Your task to perform on an android device: turn off notifications settings in the gmail app Image 0: 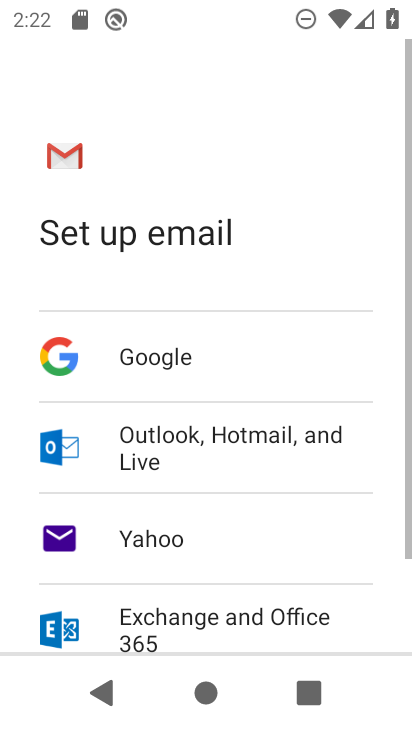
Step 0: press home button
Your task to perform on an android device: turn off notifications settings in the gmail app Image 1: 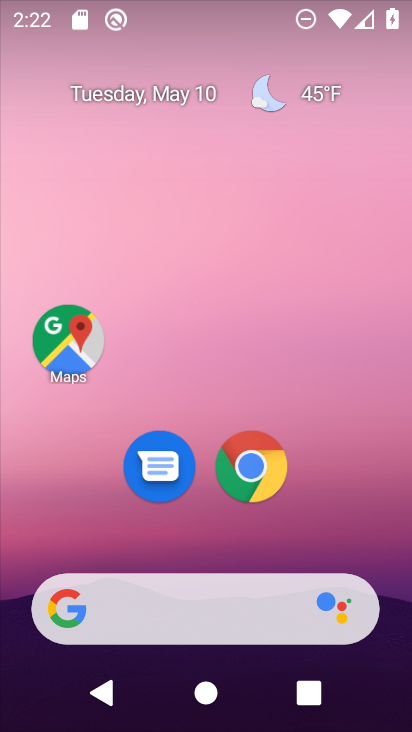
Step 1: drag from (308, 549) to (327, 25)
Your task to perform on an android device: turn off notifications settings in the gmail app Image 2: 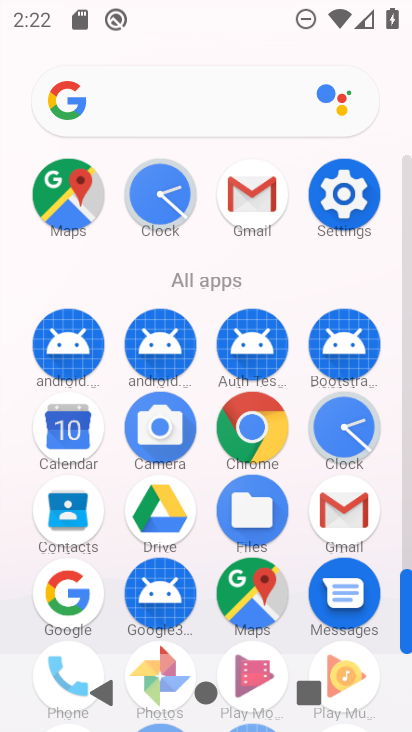
Step 2: click (257, 193)
Your task to perform on an android device: turn off notifications settings in the gmail app Image 3: 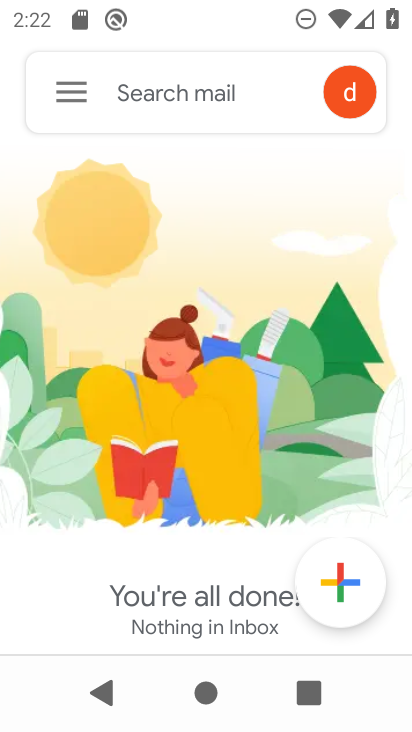
Step 3: click (78, 100)
Your task to perform on an android device: turn off notifications settings in the gmail app Image 4: 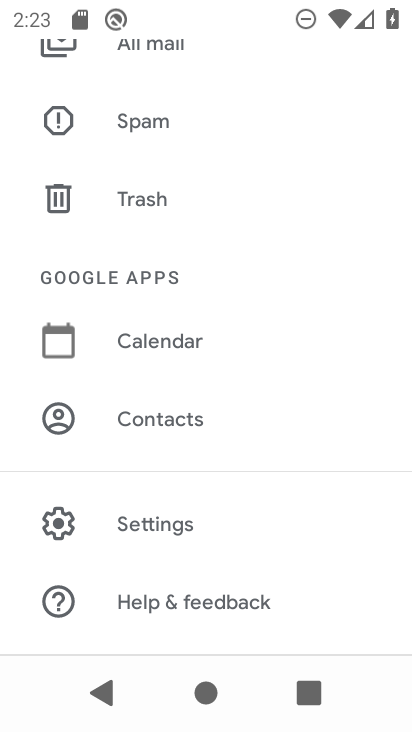
Step 4: click (197, 528)
Your task to perform on an android device: turn off notifications settings in the gmail app Image 5: 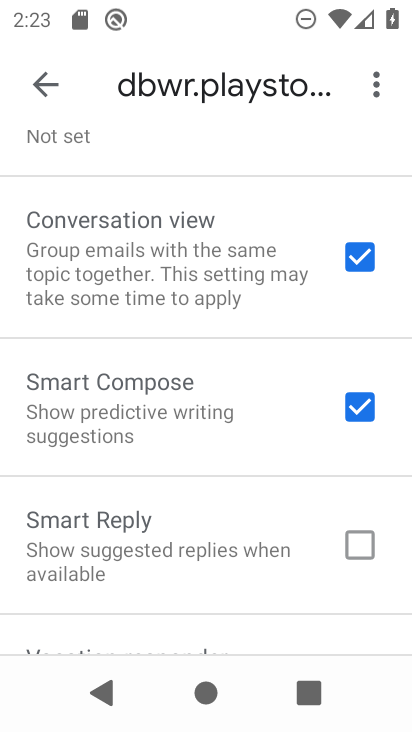
Step 5: drag from (194, 261) to (211, 470)
Your task to perform on an android device: turn off notifications settings in the gmail app Image 6: 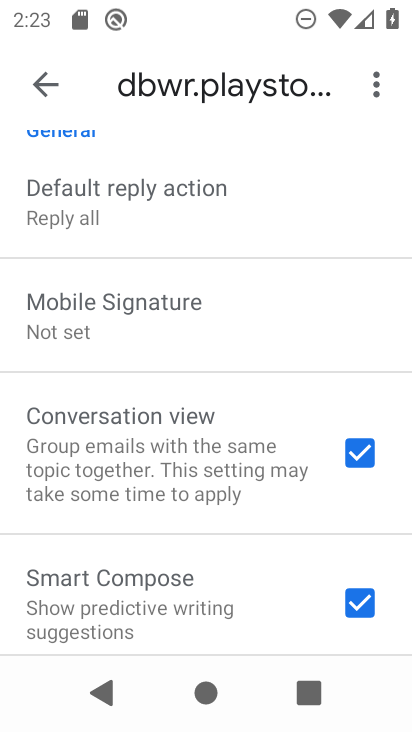
Step 6: drag from (164, 298) to (108, 449)
Your task to perform on an android device: turn off notifications settings in the gmail app Image 7: 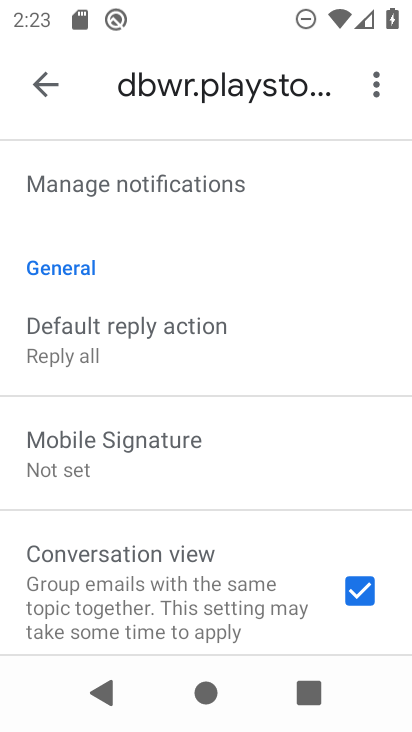
Step 7: drag from (155, 239) to (196, 448)
Your task to perform on an android device: turn off notifications settings in the gmail app Image 8: 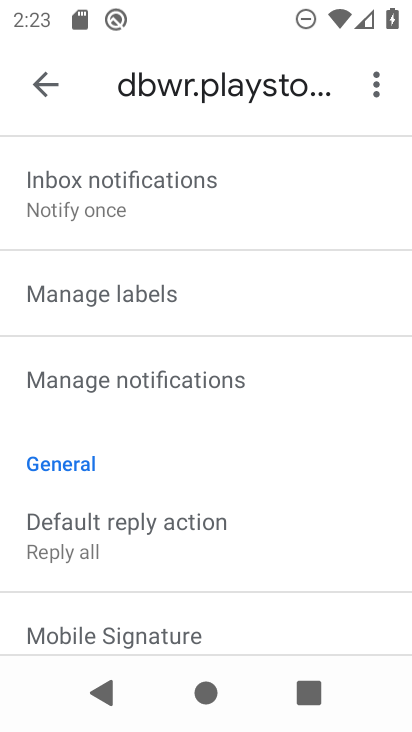
Step 8: click (146, 393)
Your task to perform on an android device: turn off notifications settings in the gmail app Image 9: 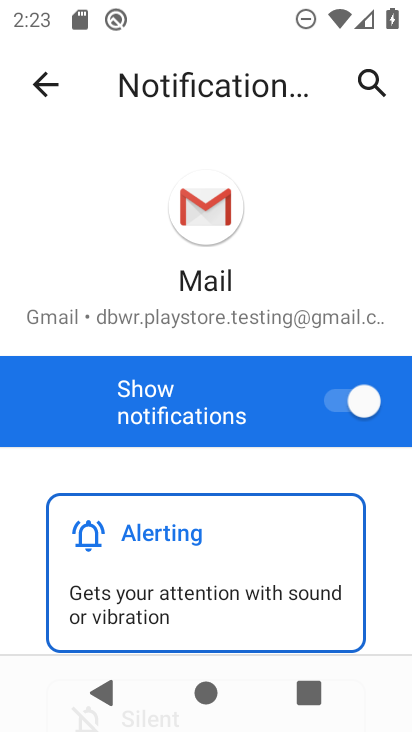
Step 9: click (351, 399)
Your task to perform on an android device: turn off notifications settings in the gmail app Image 10: 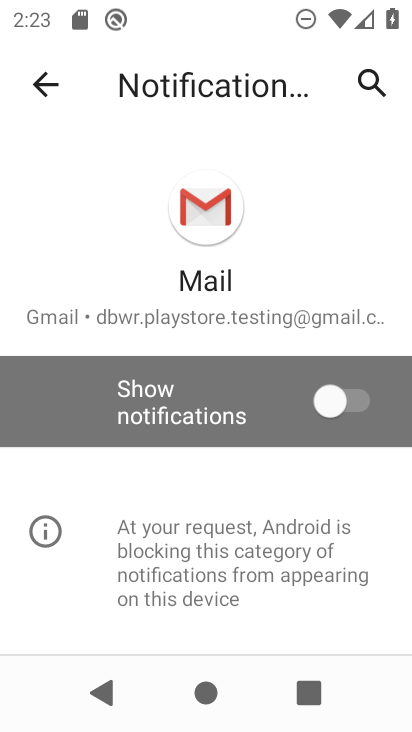
Step 10: task complete